Your task to perform on an android device: toggle sleep mode Image 0: 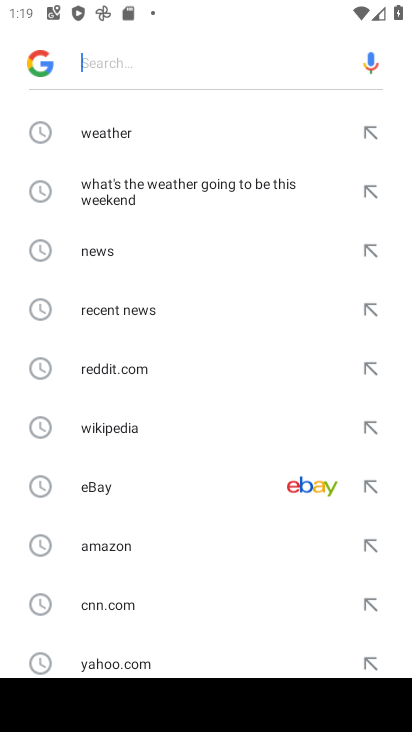
Step 0: press home button
Your task to perform on an android device: toggle sleep mode Image 1: 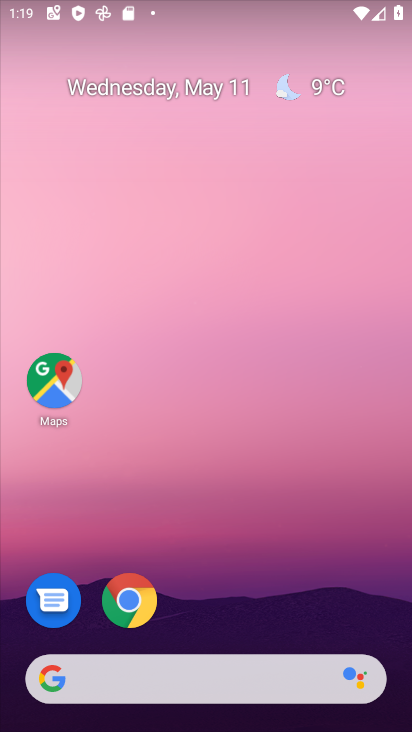
Step 1: drag from (169, 585) to (178, 13)
Your task to perform on an android device: toggle sleep mode Image 2: 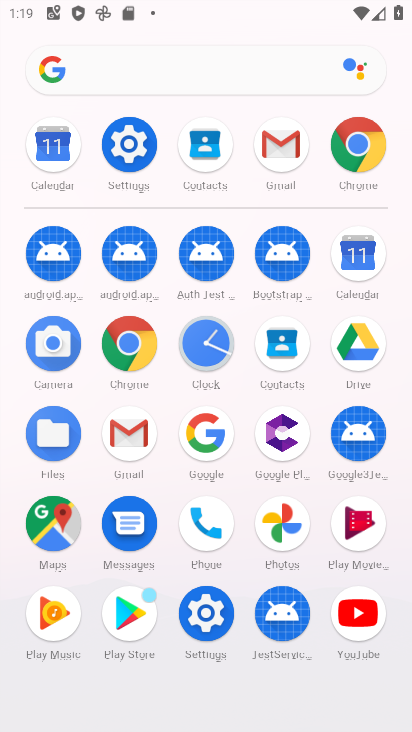
Step 2: click (131, 145)
Your task to perform on an android device: toggle sleep mode Image 3: 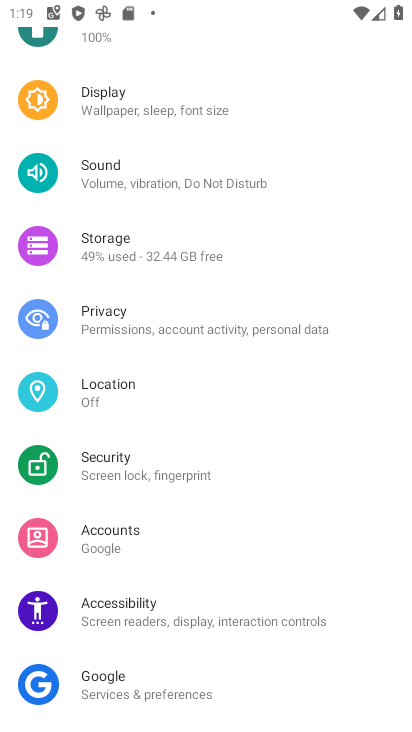
Step 3: click (258, 105)
Your task to perform on an android device: toggle sleep mode Image 4: 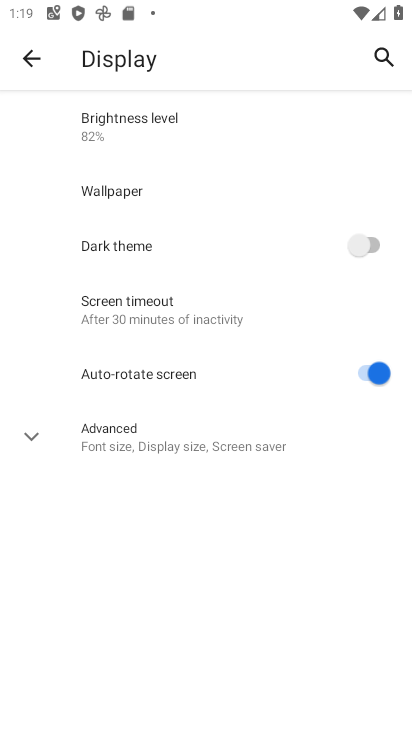
Step 4: task complete